Your task to perform on an android device: Go to display settings Image 0: 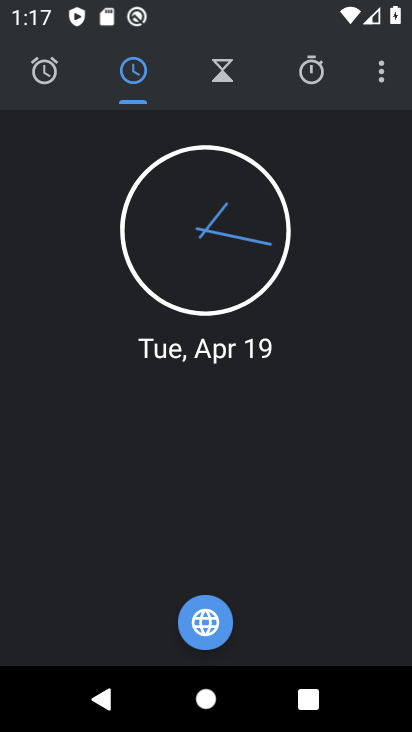
Step 0: press home button
Your task to perform on an android device: Go to display settings Image 1: 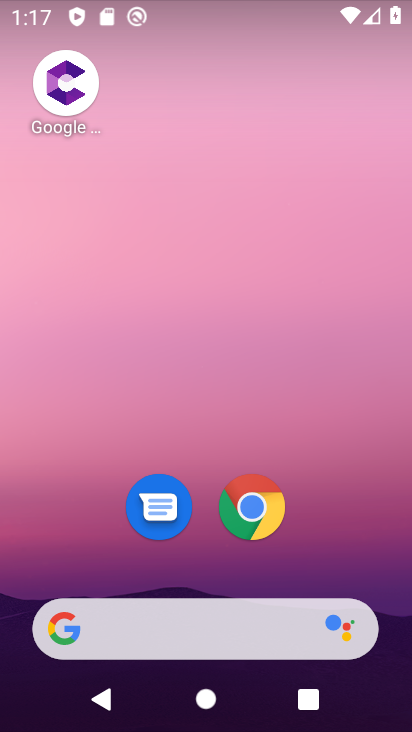
Step 1: drag from (195, 333) to (196, 65)
Your task to perform on an android device: Go to display settings Image 2: 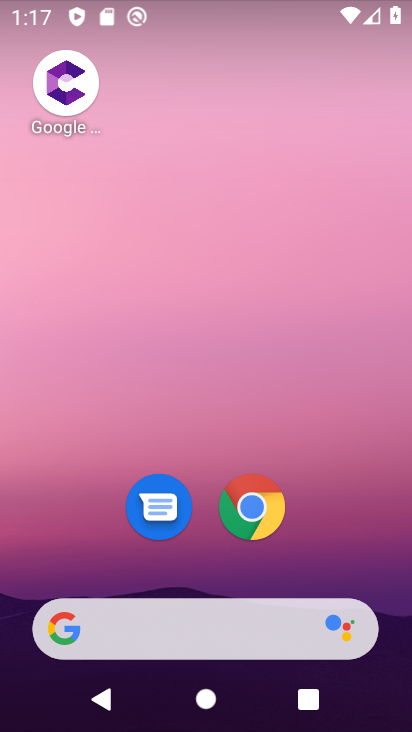
Step 2: drag from (199, 548) to (227, 92)
Your task to perform on an android device: Go to display settings Image 3: 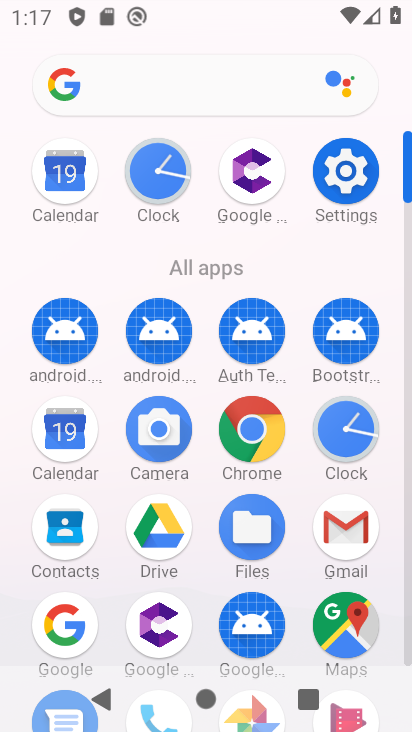
Step 3: click (344, 175)
Your task to perform on an android device: Go to display settings Image 4: 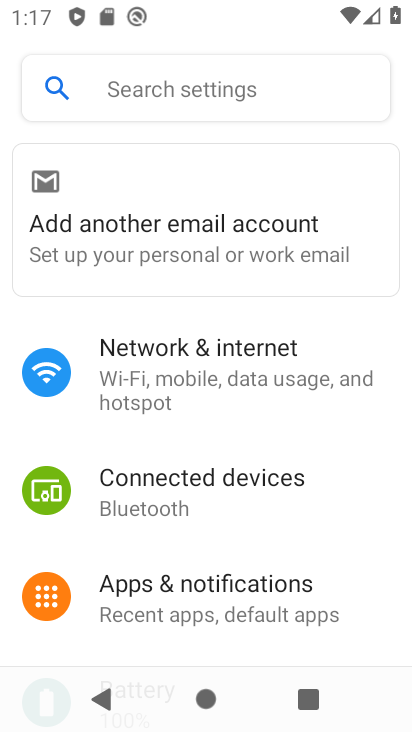
Step 4: drag from (197, 571) to (199, 145)
Your task to perform on an android device: Go to display settings Image 5: 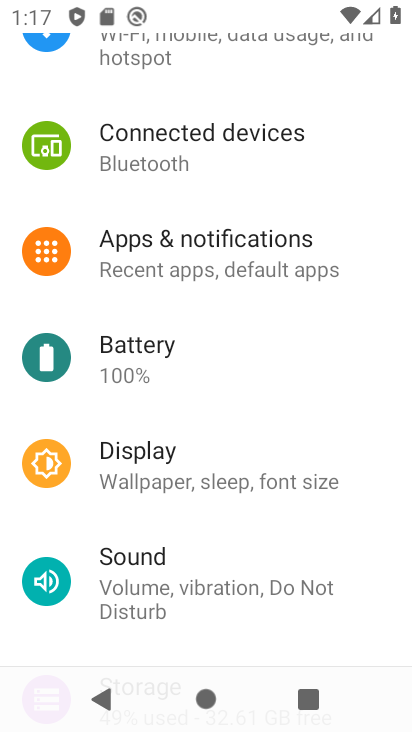
Step 5: click (162, 457)
Your task to perform on an android device: Go to display settings Image 6: 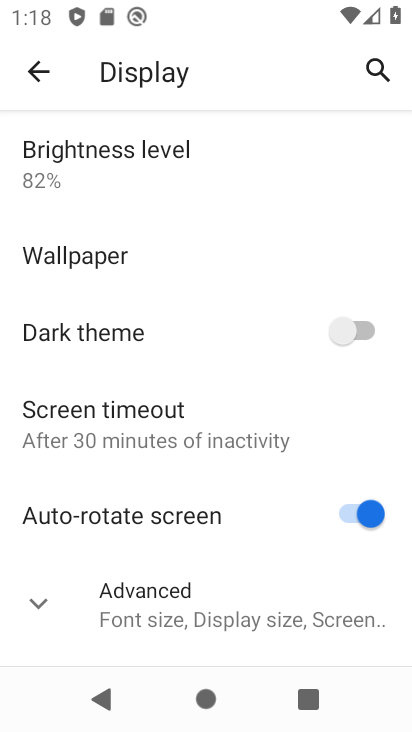
Step 6: task complete